Your task to perform on an android device: turn on data saver in the chrome app Image 0: 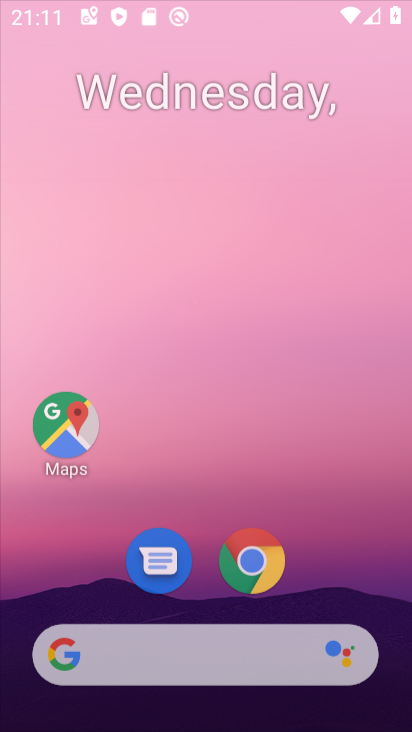
Step 0: drag from (61, 304) to (395, 313)
Your task to perform on an android device: turn on data saver in the chrome app Image 1: 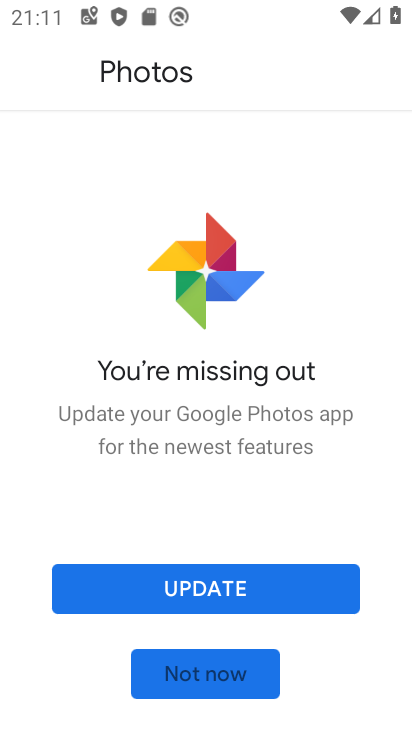
Step 1: press home button
Your task to perform on an android device: turn on data saver in the chrome app Image 2: 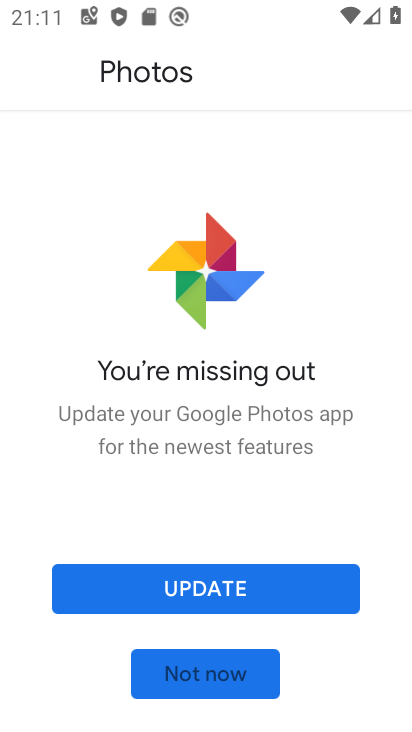
Step 2: drag from (395, 313) to (408, 454)
Your task to perform on an android device: turn on data saver in the chrome app Image 3: 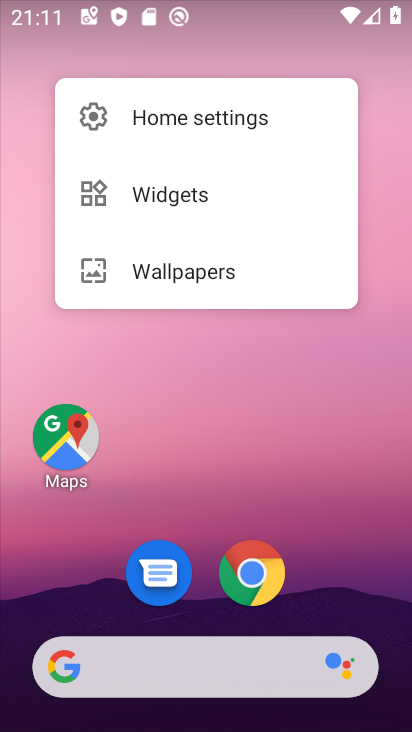
Step 3: click (252, 569)
Your task to perform on an android device: turn on data saver in the chrome app Image 4: 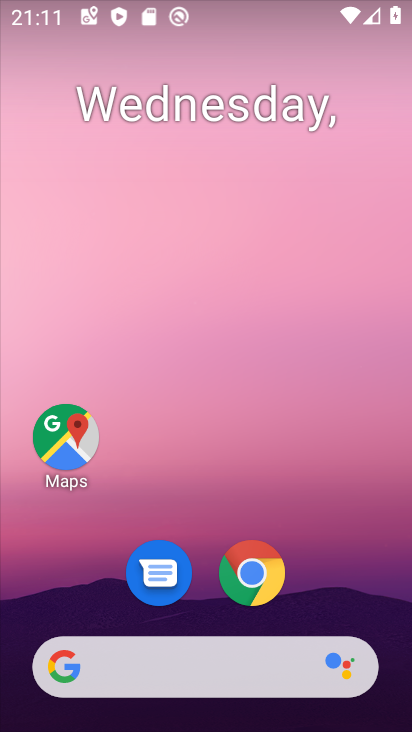
Step 4: click (252, 569)
Your task to perform on an android device: turn on data saver in the chrome app Image 5: 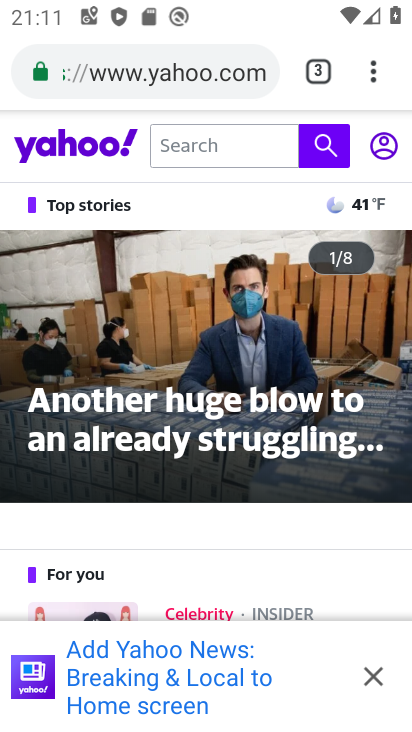
Step 5: click (368, 69)
Your task to perform on an android device: turn on data saver in the chrome app Image 6: 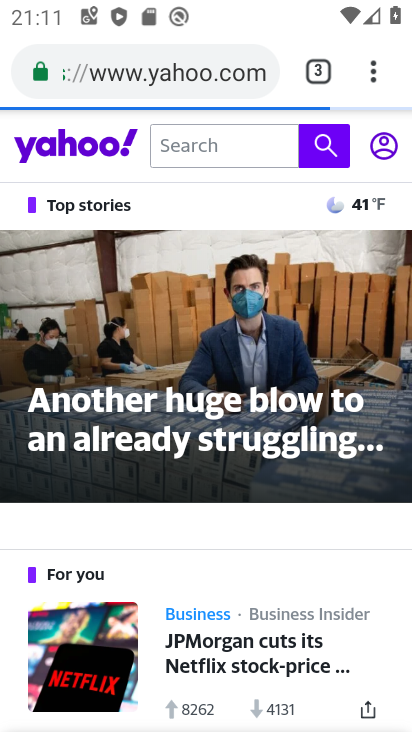
Step 6: click (368, 69)
Your task to perform on an android device: turn on data saver in the chrome app Image 7: 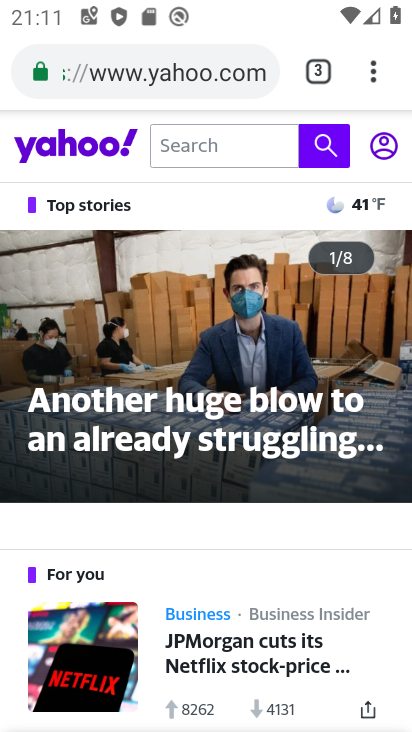
Step 7: click (370, 69)
Your task to perform on an android device: turn on data saver in the chrome app Image 8: 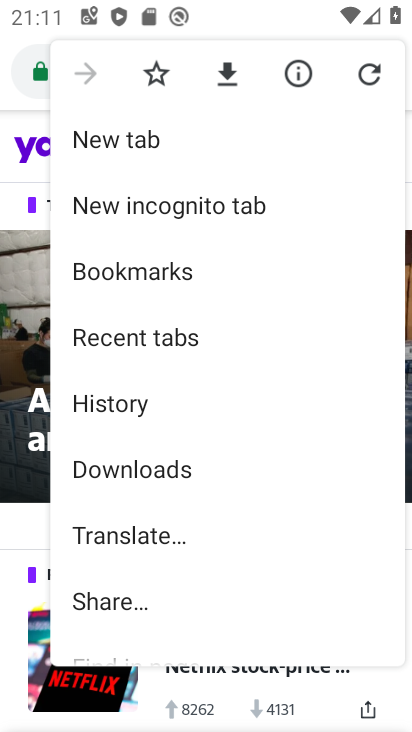
Step 8: drag from (220, 607) to (246, 261)
Your task to perform on an android device: turn on data saver in the chrome app Image 9: 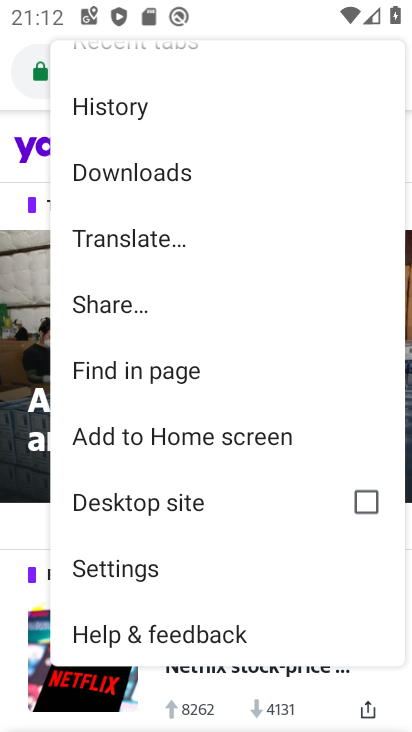
Step 9: click (109, 560)
Your task to perform on an android device: turn on data saver in the chrome app Image 10: 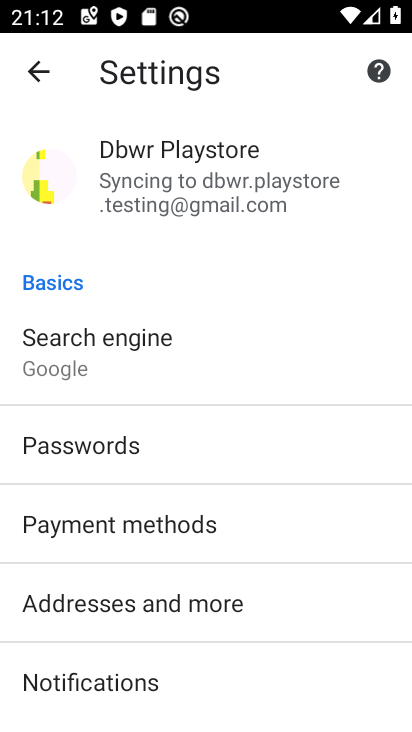
Step 10: drag from (308, 634) to (290, 293)
Your task to perform on an android device: turn on data saver in the chrome app Image 11: 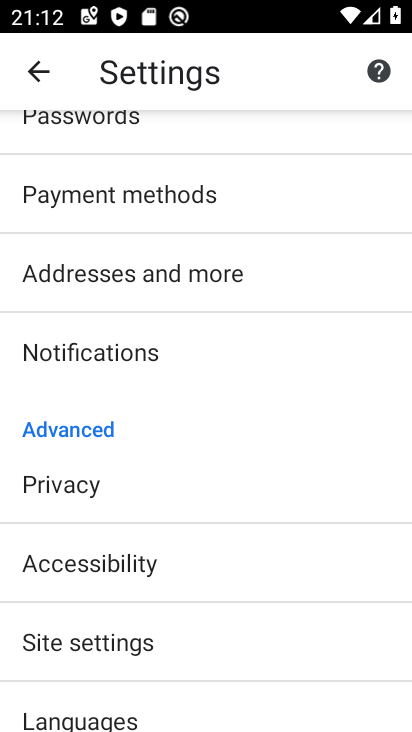
Step 11: drag from (238, 680) to (235, 335)
Your task to perform on an android device: turn on data saver in the chrome app Image 12: 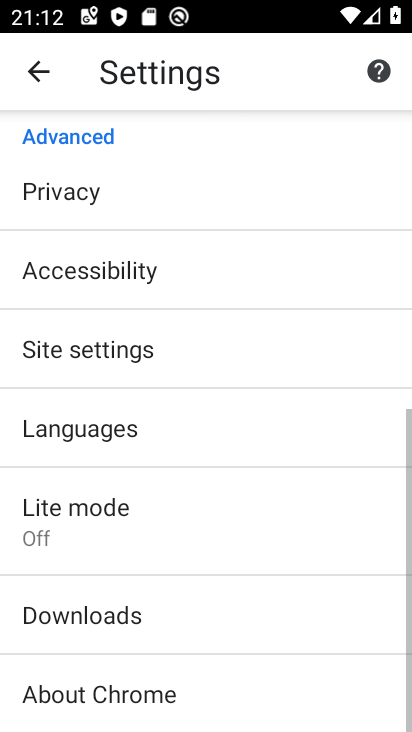
Step 12: click (63, 519)
Your task to perform on an android device: turn on data saver in the chrome app Image 13: 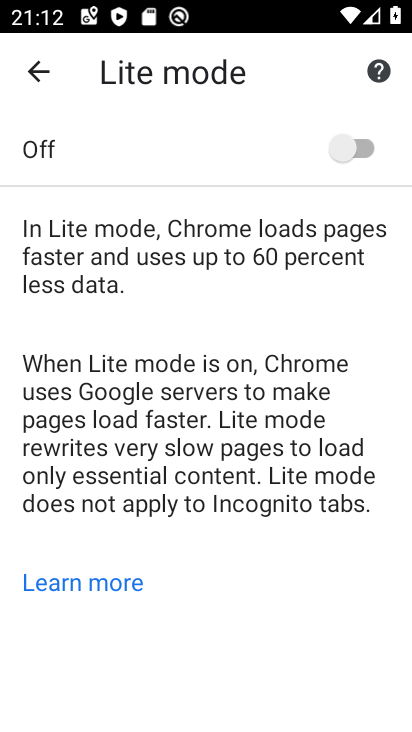
Step 13: click (364, 138)
Your task to perform on an android device: turn on data saver in the chrome app Image 14: 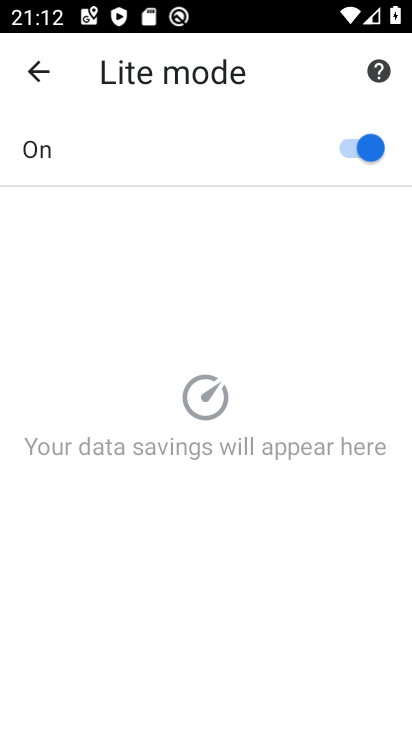
Step 14: task complete